Your task to perform on an android device: turn vacation reply on in the gmail app Image 0: 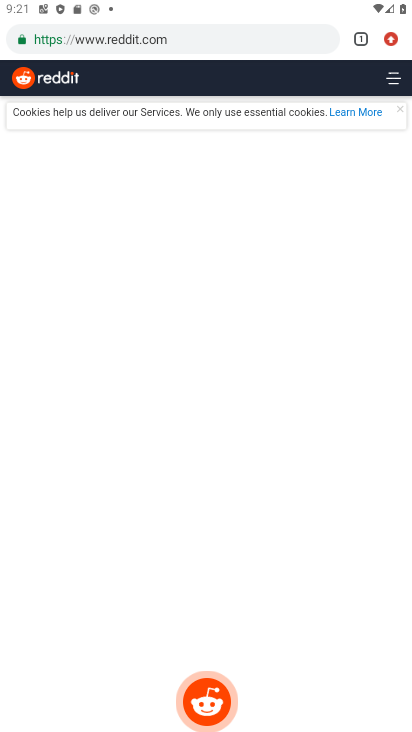
Step 0: press home button
Your task to perform on an android device: turn vacation reply on in the gmail app Image 1: 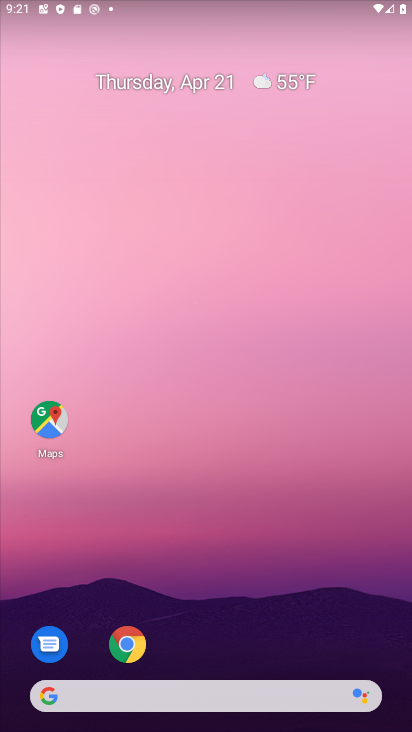
Step 1: drag from (258, 632) to (324, 246)
Your task to perform on an android device: turn vacation reply on in the gmail app Image 2: 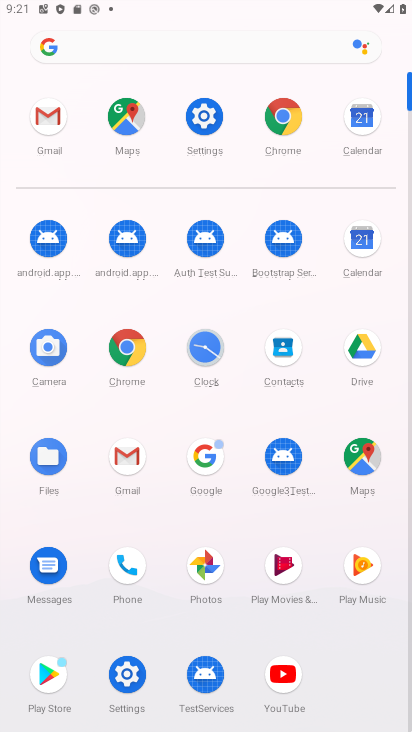
Step 2: click (129, 458)
Your task to perform on an android device: turn vacation reply on in the gmail app Image 3: 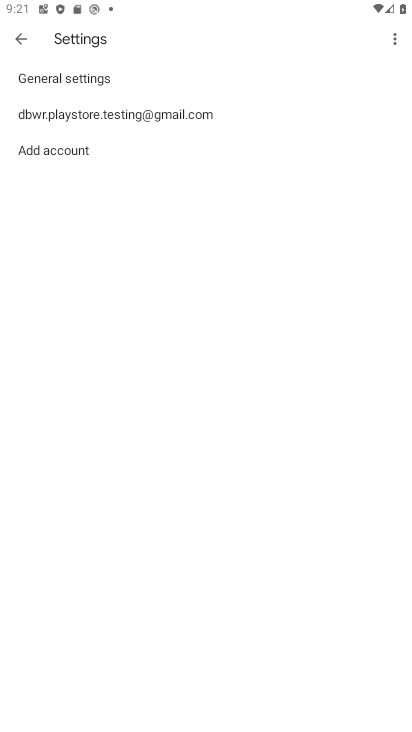
Step 3: click (109, 107)
Your task to perform on an android device: turn vacation reply on in the gmail app Image 4: 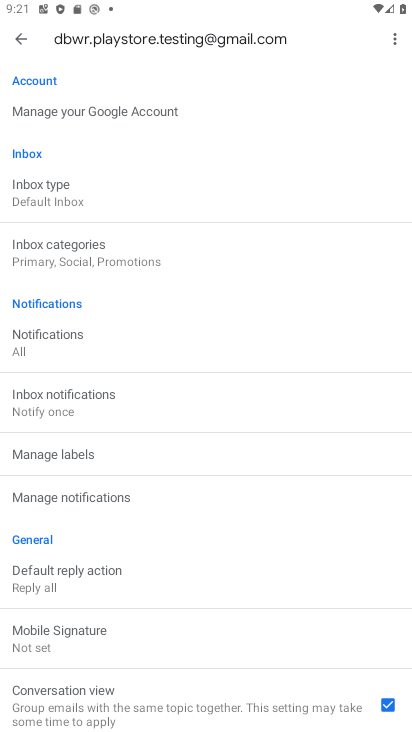
Step 4: drag from (149, 588) to (410, 180)
Your task to perform on an android device: turn vacation reply on in the gmail app Image 5: 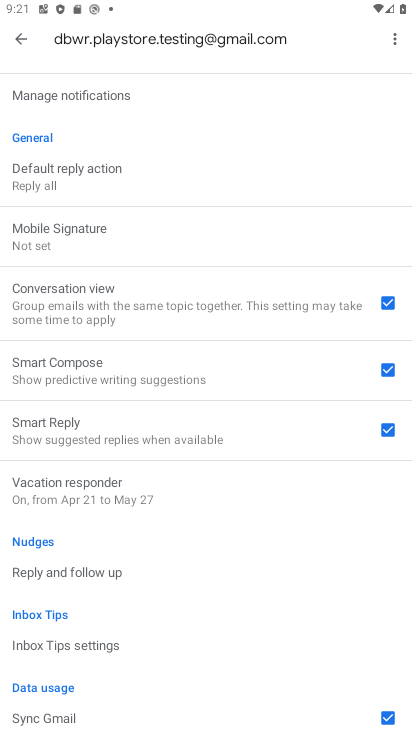
Step 5: click (112, 478)
Your task to perform on an android device: turn vacation reply on in the gmail app Image 6: 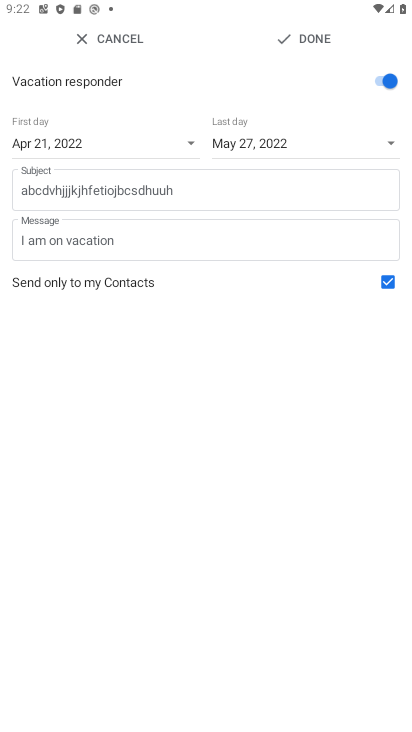
Step 6: task complete